Your task to perform on an android device: toggle sleep mode Image 0: 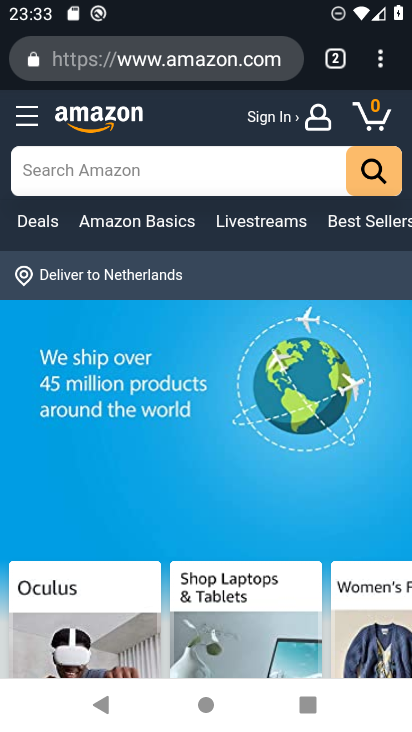
Step 0: press home button
Your task to perform on an android device: toggle sleep mode Image 1: 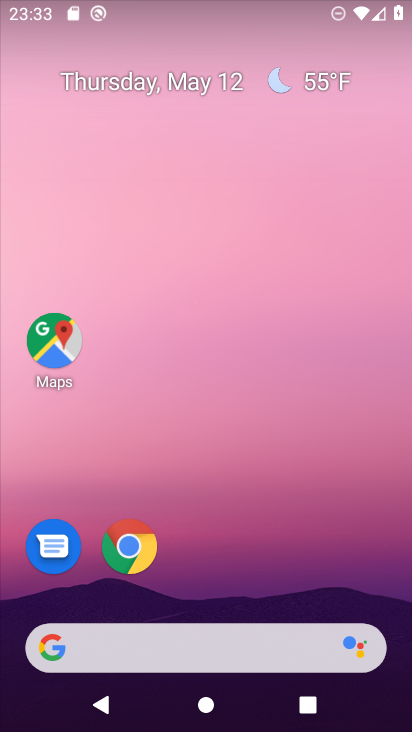
Step 1: drag from (187, 559) to (182, 186)
Your task to perform on an android device: toggle sleep mode Image 2: 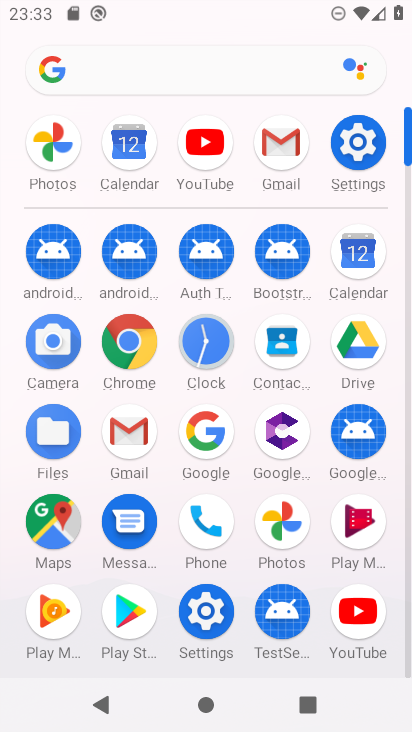
Step 2: click (357, 133)
Your task to perform on an android device: toggle sleep mode Image 3: 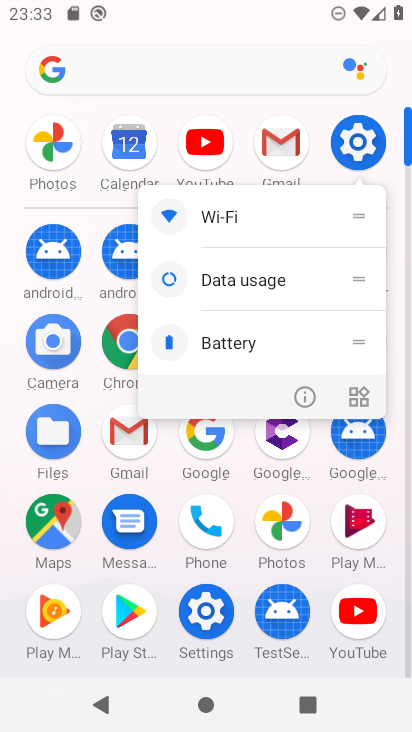
Step 3: click (357, 140)
Your task to perform on an android device: toggle sleep mode Image 4: 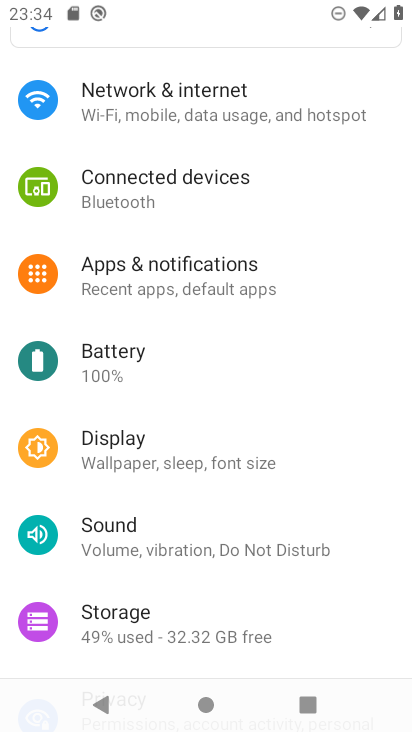
Step 4: click (166, 470)
Your task to perform on an android device: toggle sleep mode Image 5: 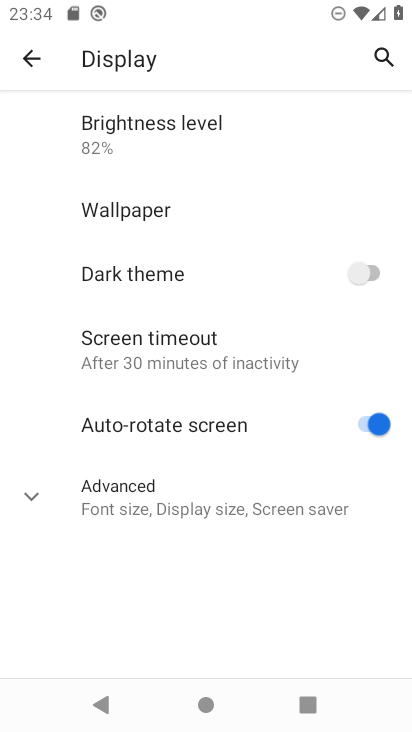
Step 5: task complete